Your task to perform on an android device: Open calendar and show me the fourth week of next month Image 0: 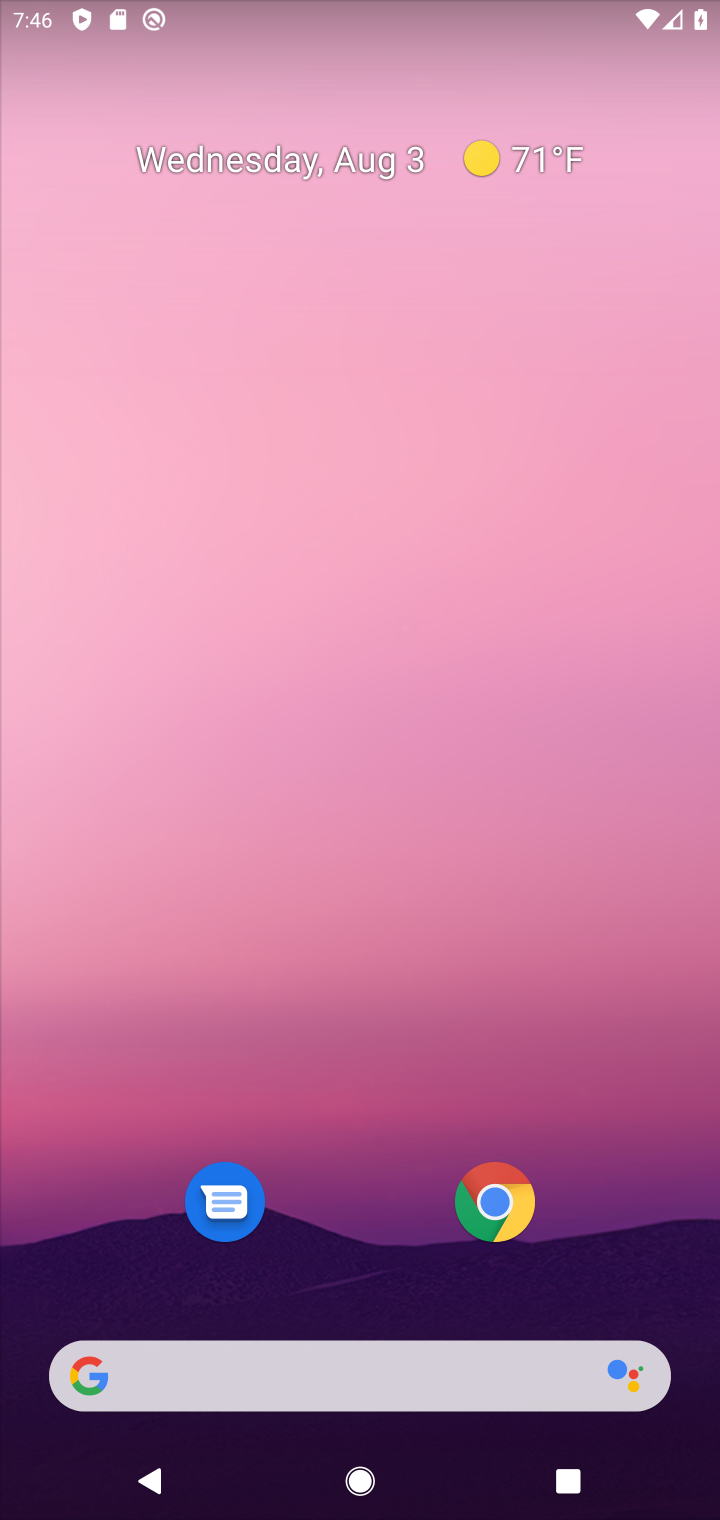
Step 0: drag from (285, 1380) to (288, 287)
Your task to perform on an android device: Open calendar and show me the fourth week of next month Image 1: 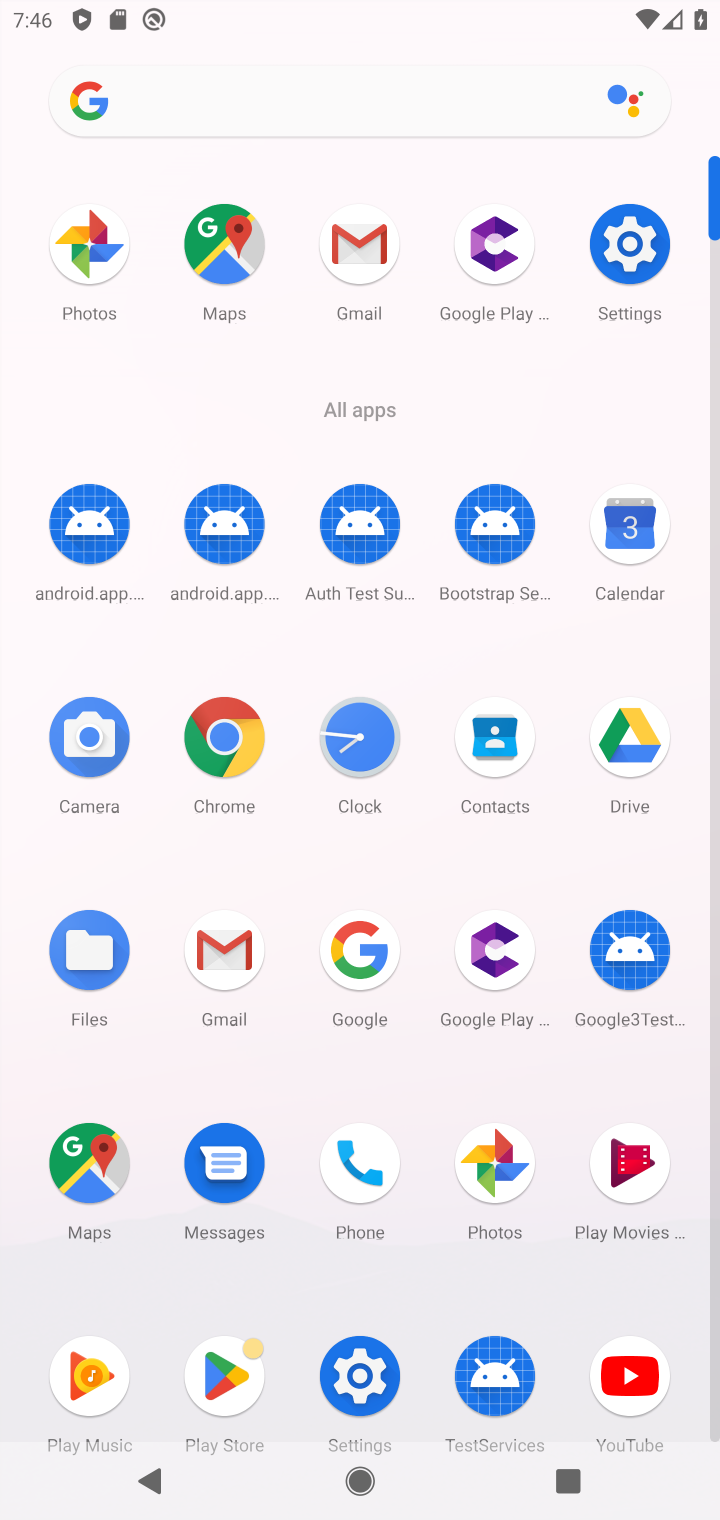
Step 1: click (629, 528)
Your task to perform on an android device: Open calendar and show me the fourth week of next month Image 2: 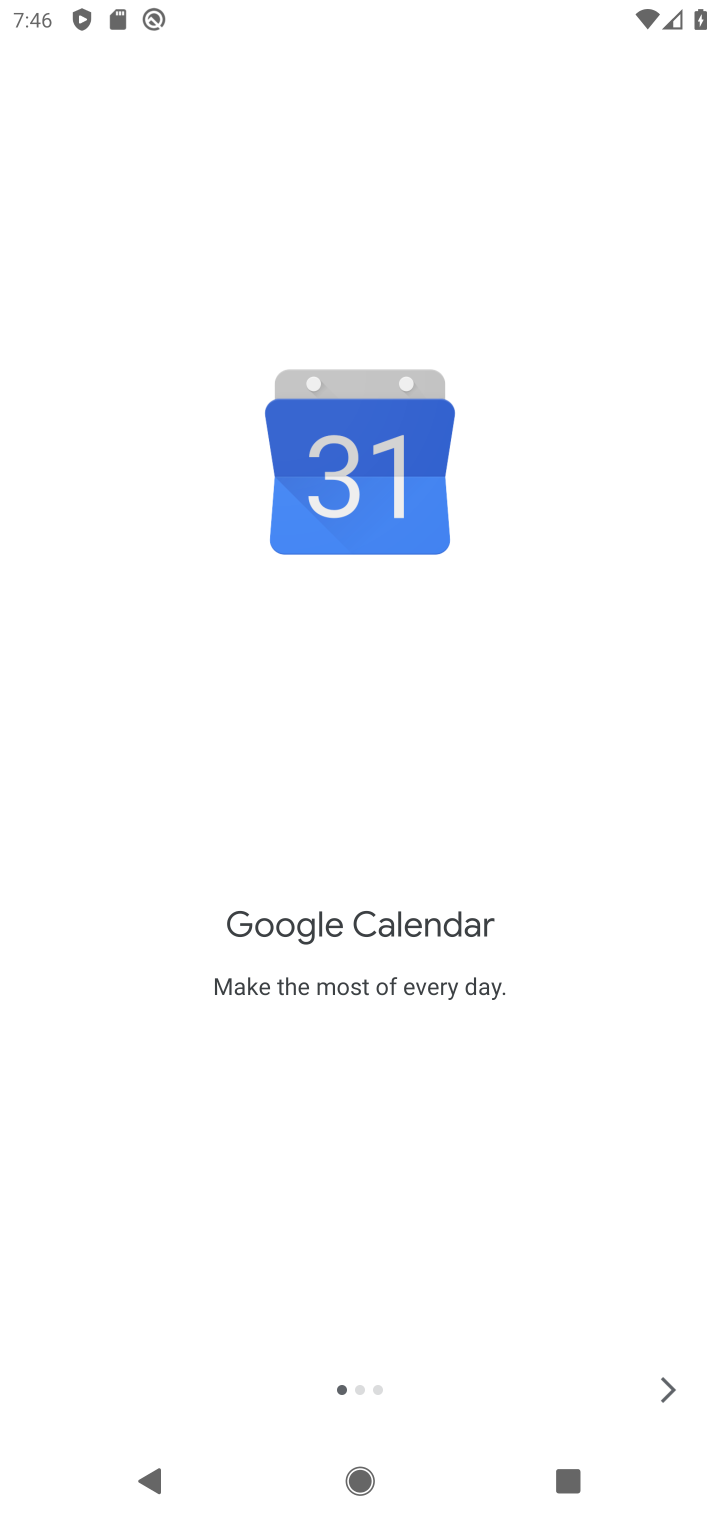
Step 2: click (663, 1379)
Your task to perform on an android device: Open calendar and show me the fourth week of next month Image 3: 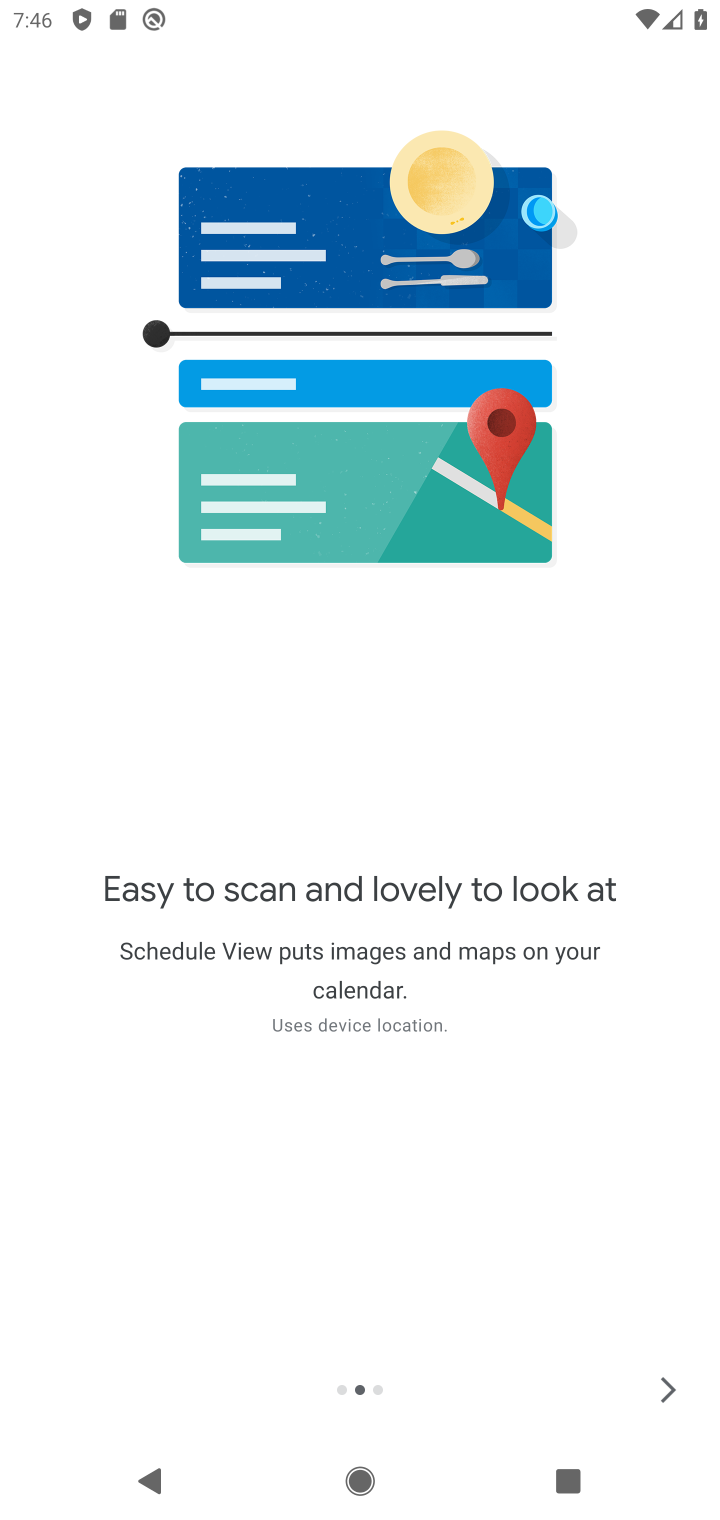
Step 3: click (666, 1382)
Your task to perform on an android device: Open calendar and show me the fourth week of next month Image 4: 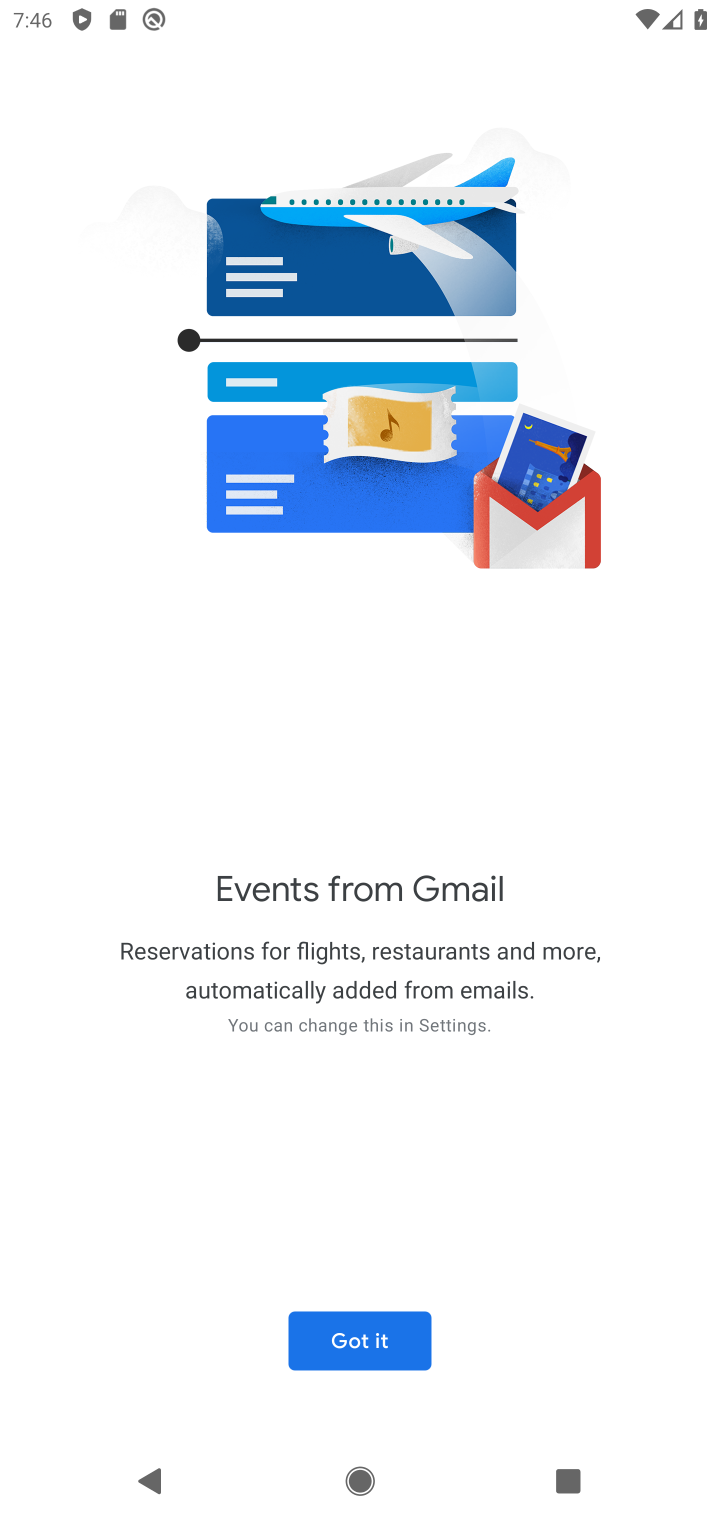
Step 4: click (380, 1341)
Your task to perform on an android device: Open calendar and show me the fourth week of next month Image 5: 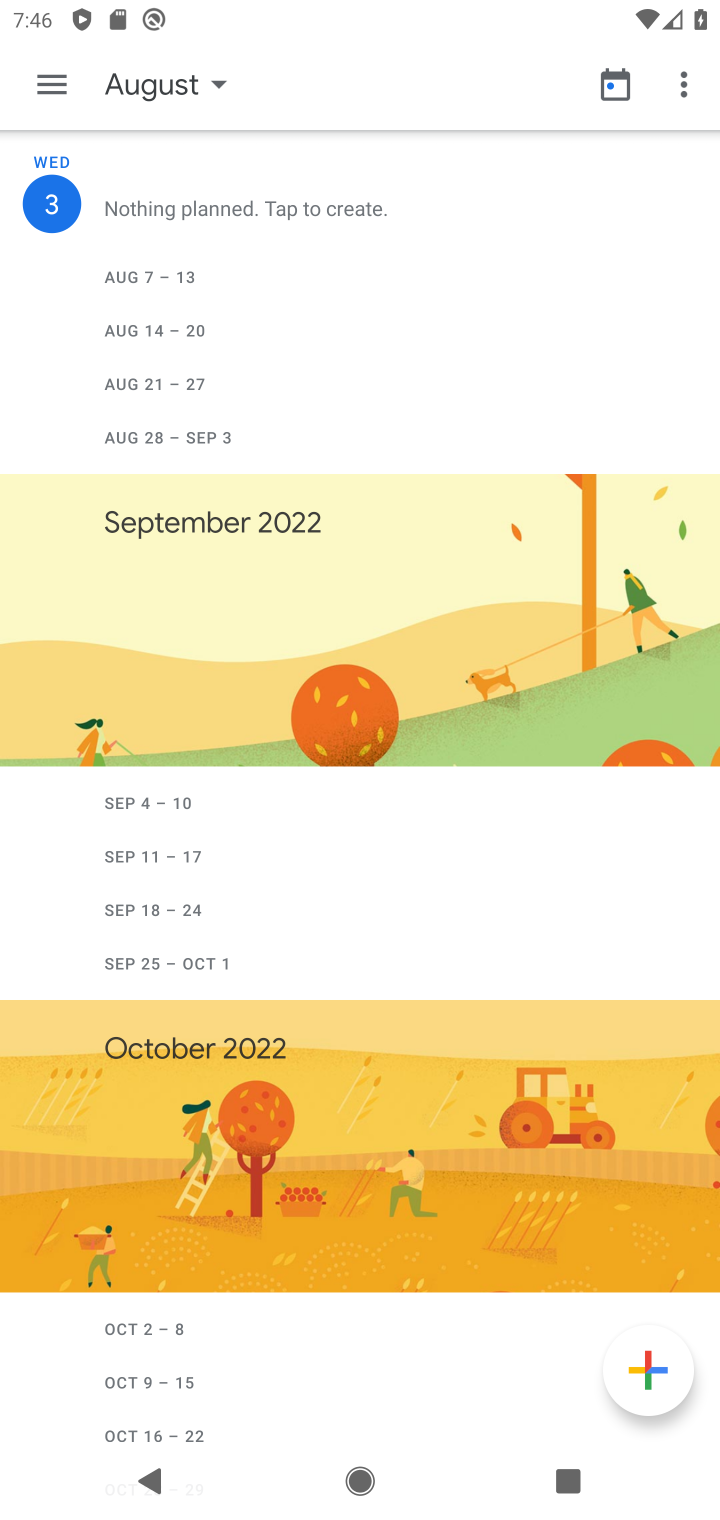
Step 5: click (211, 84)
Your task to perform on an android device: Open calendar and show me the fourth week of next month Image 6: 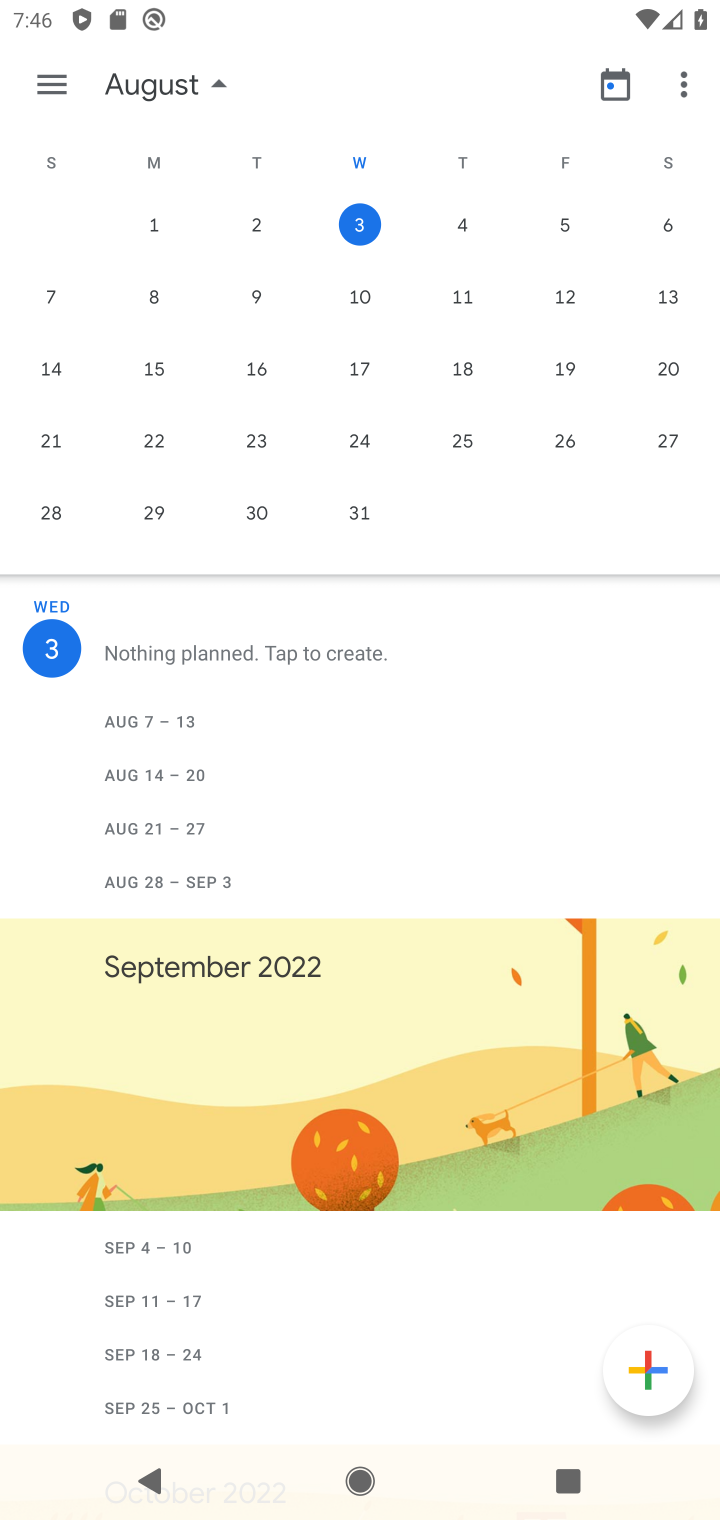
Step 6: drag from (625, 408) to (20, 438)
Your task to perform on an android device: Open calendar and show me the fourth week of next month Image 7: 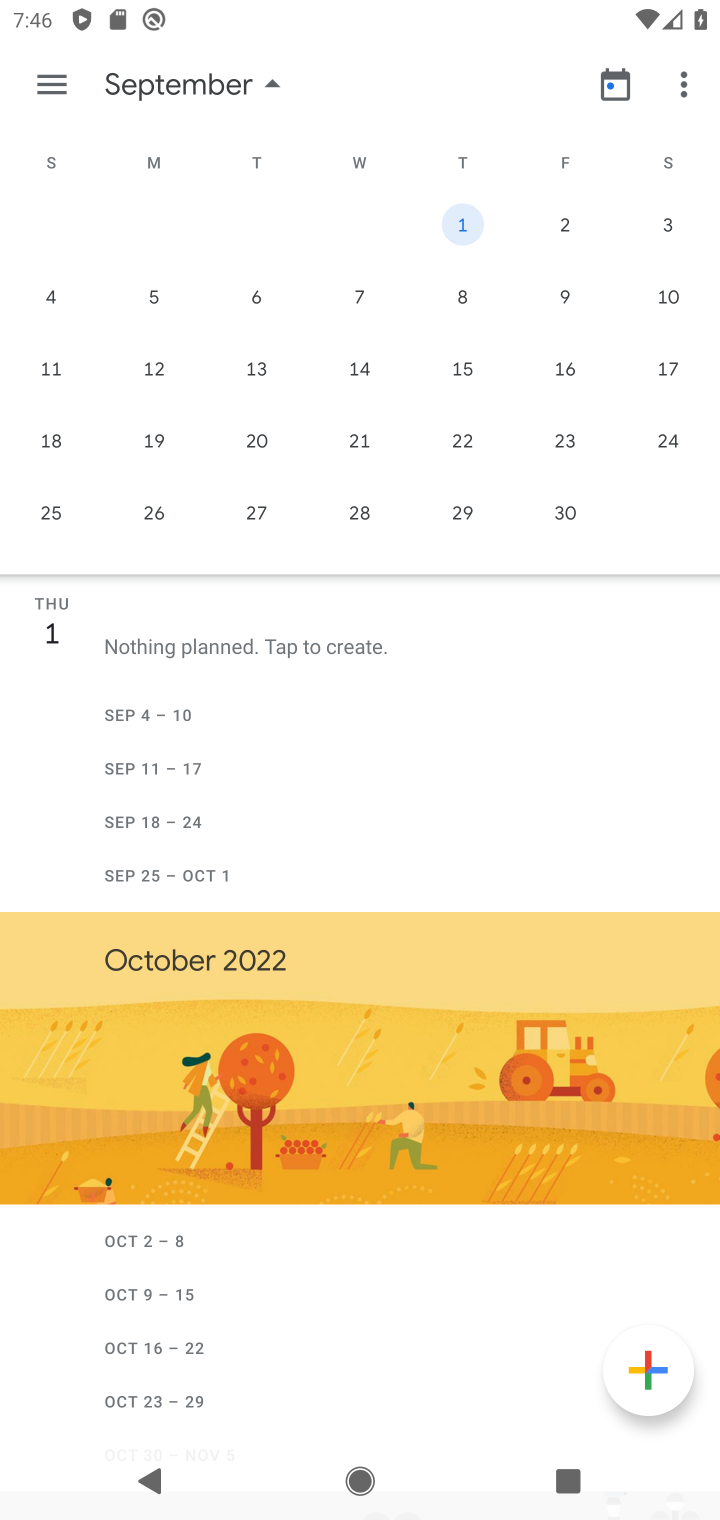
Step 7: click (154, 513)
Your task to perform on an android device: Open calendar and show me the fourth week of next month Image 8: 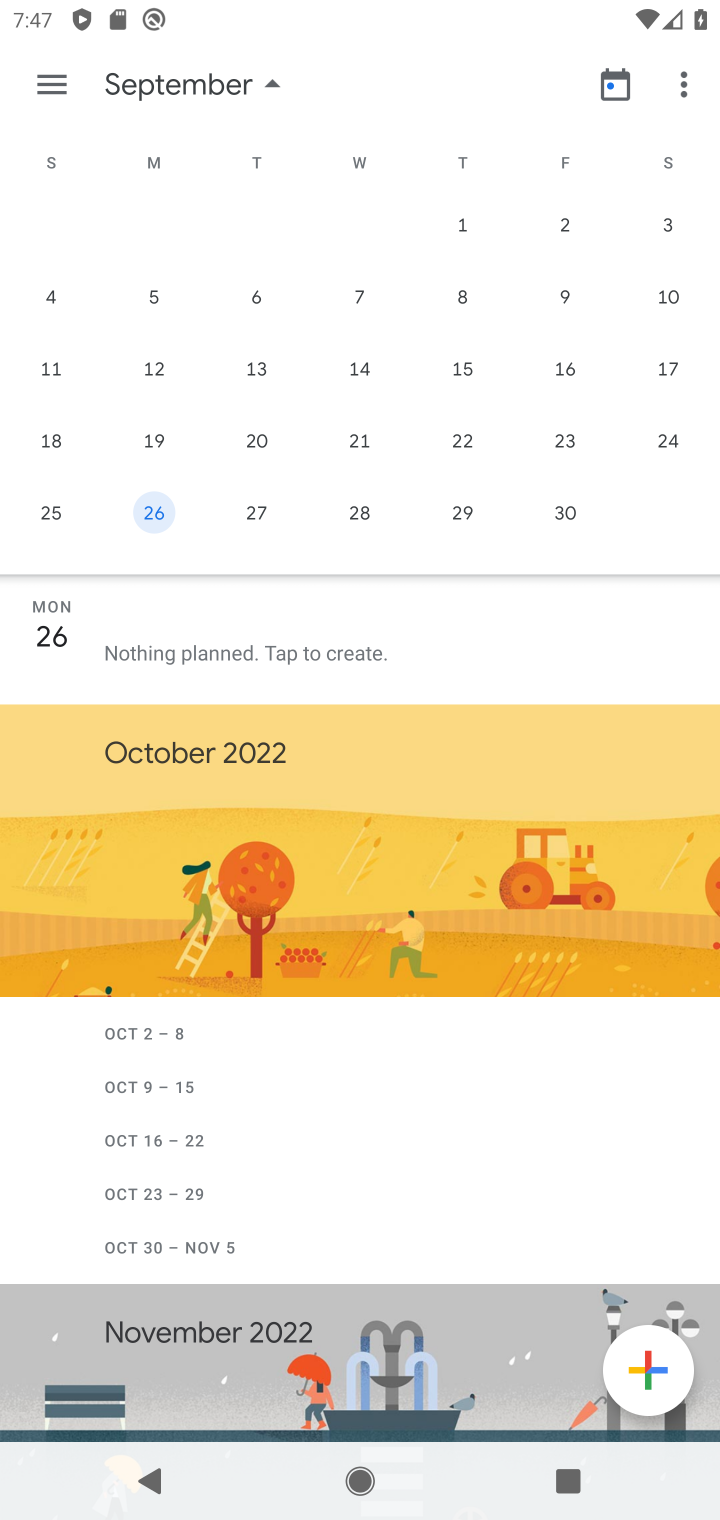
Step 8: click (56, 92)
Your task to perform on an android device: Open calendar and show me the fourth week of next month Image 9: 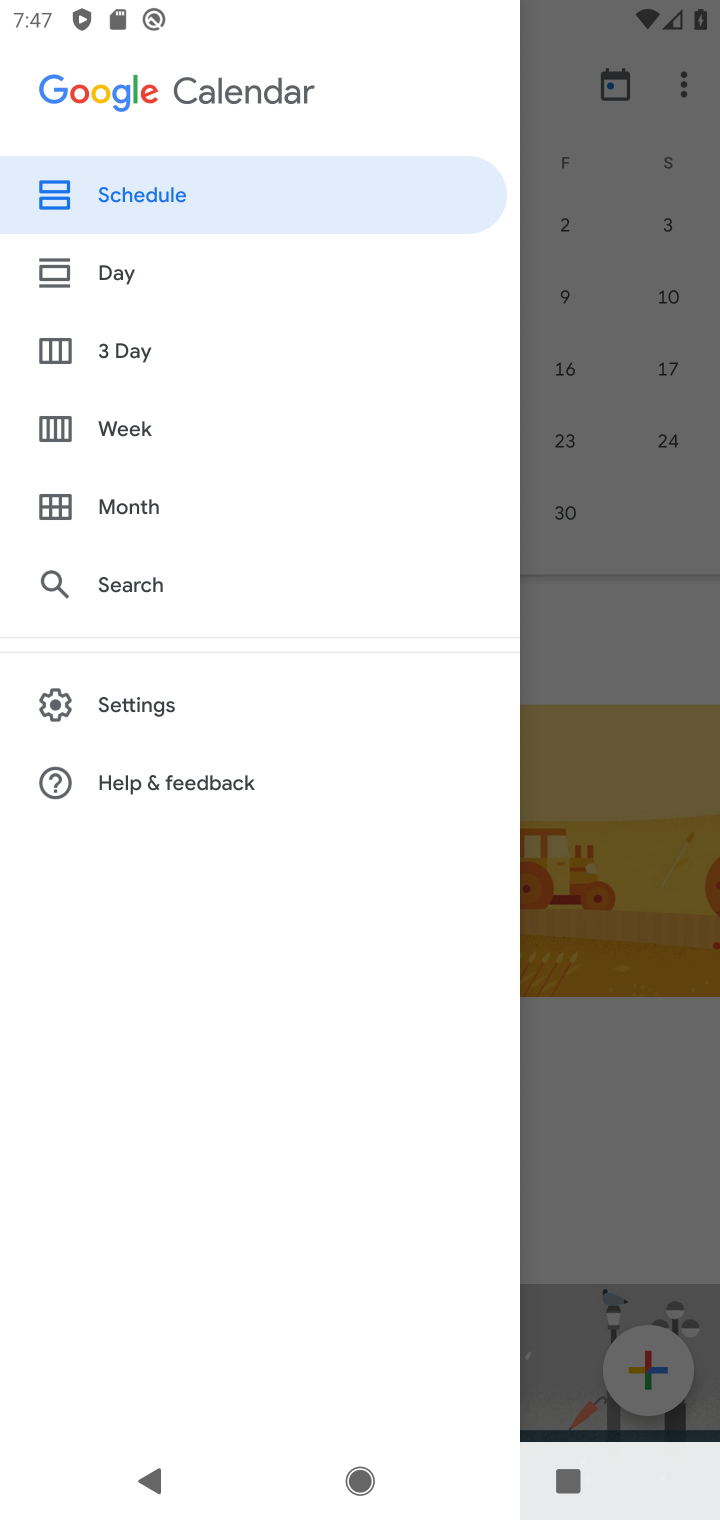
Step 9: click (128, 438)
Your task to perform on an android device: Open calendar and show me the fourth week of next month Image 10: 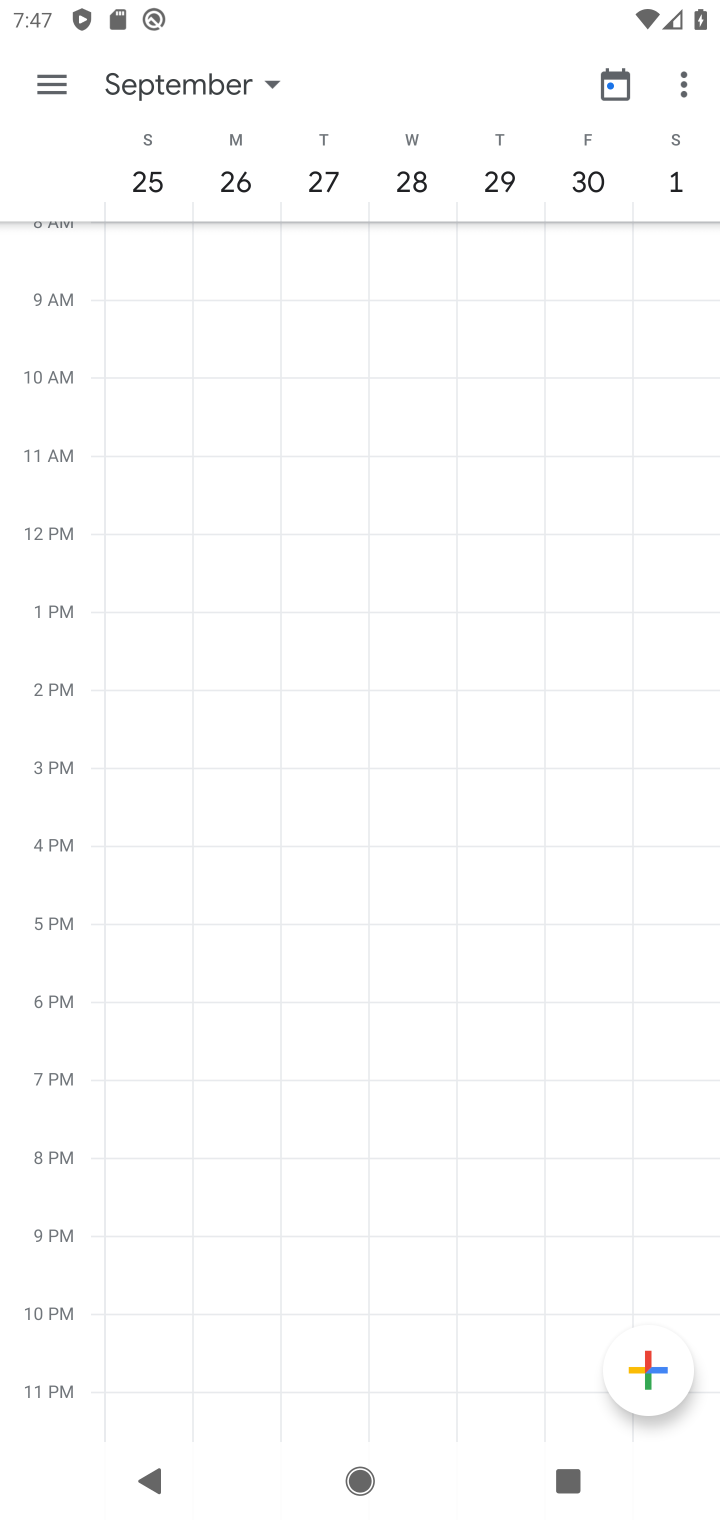
Step 10: task complete